Your task to perform on an android device: turn off improve location accuracy Image 0: 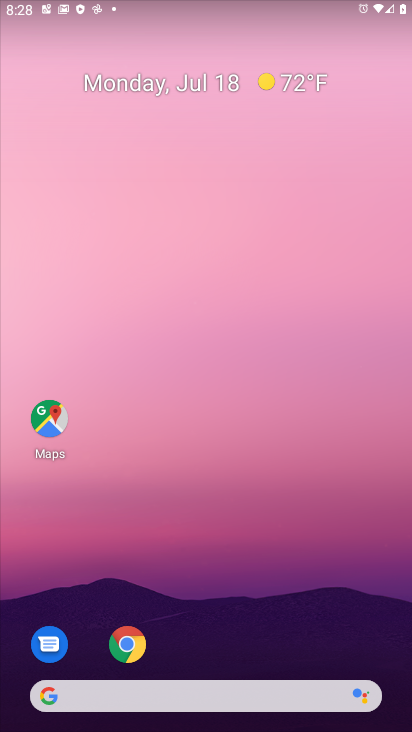
Step 0: drag from (385, 679) to (237, 245)
Your task to perform on an android device: turn off improve location accuracy Image 1: 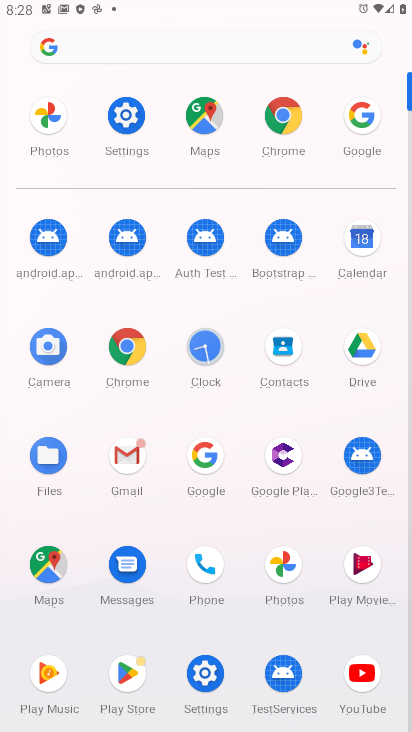
Step 1: click (214, 680)
Your task to perform on an android device: turn off improve location accuracy Image 2: 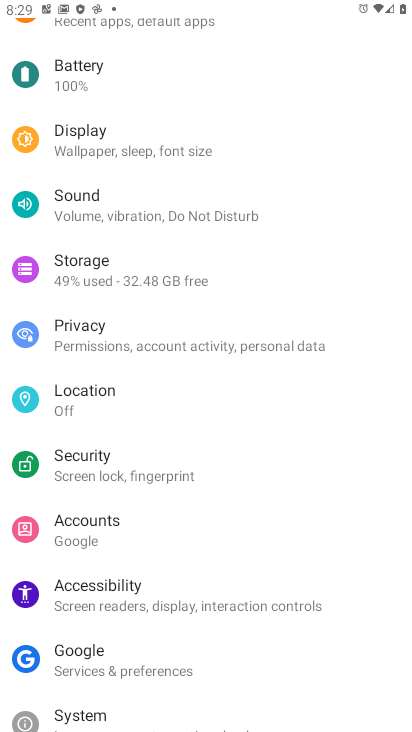
Step 2: click (72, 406)
Your task to perform on an android device: turn off improve location accuracy Image 3: 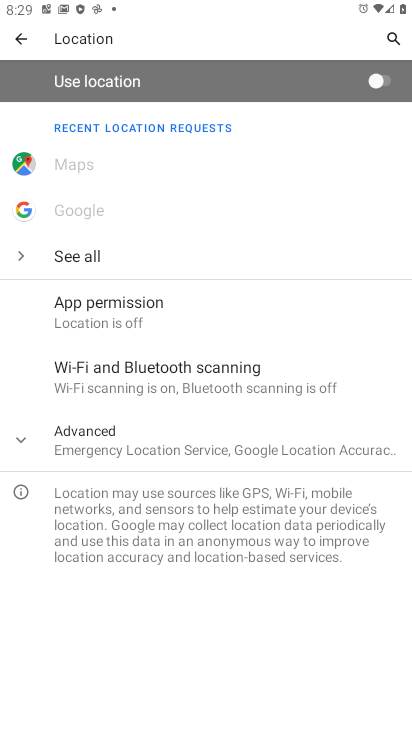
Step 3: click (129, 433)
Your task to perform on an android device: turn off improve location accuracy Image 4: 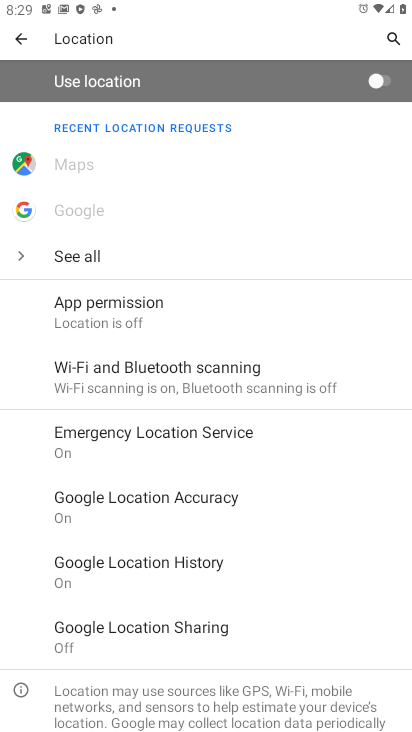
Step 4: click (167, 505)
Your task to perform on an android device: turn off improve location accuracy Image 5: 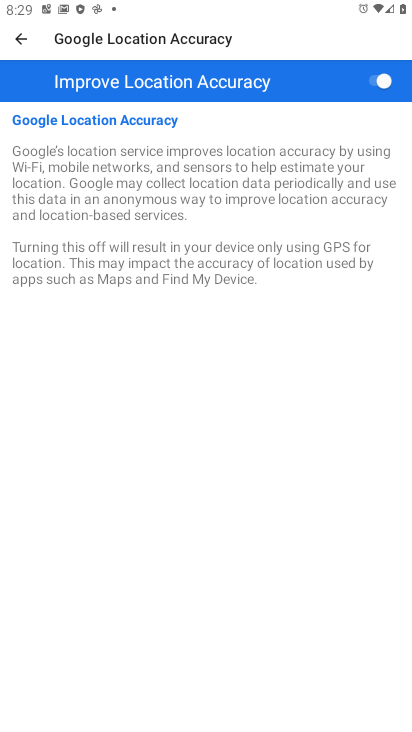
Step 5: click (374, 82)
Your task to perform on an android device: turn off improve location accuracy Image 6: 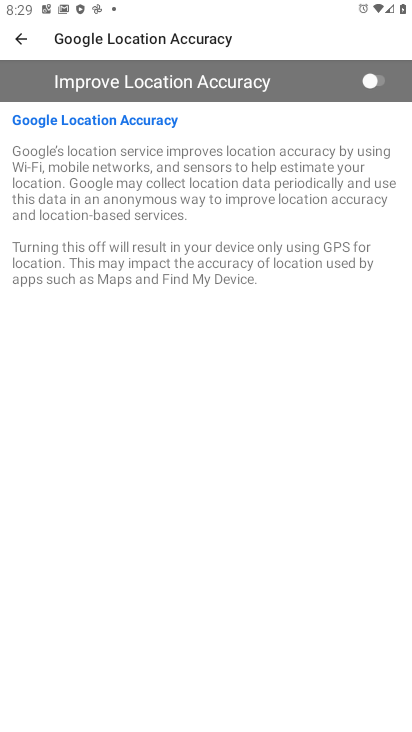
Step 6: task complete